Your task to perform on an android device: turn off picture-in-picture Image 0: 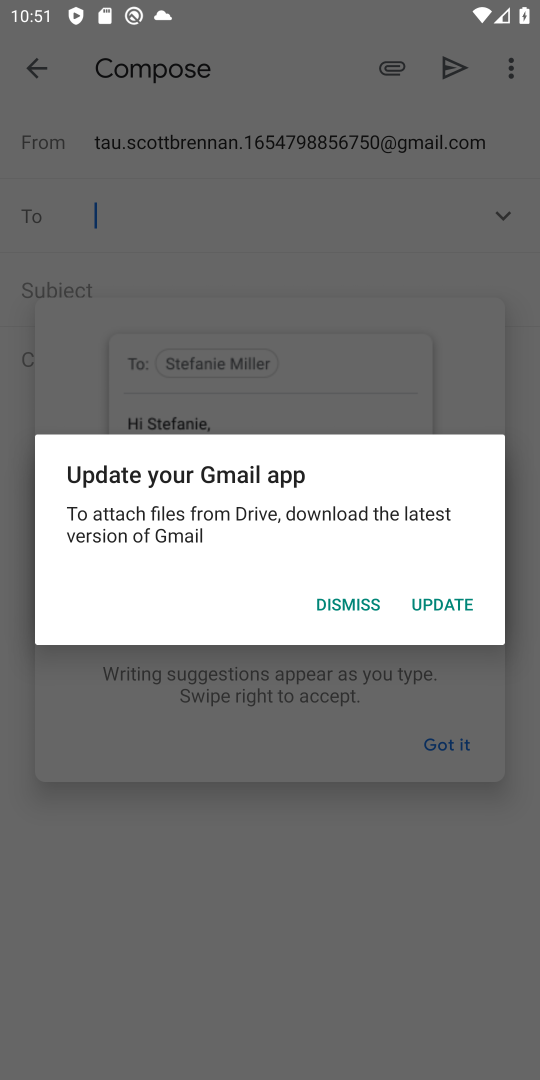
Step 0: press home button
Your task to perform on an android device: turn off picture-in-picture Image 1: 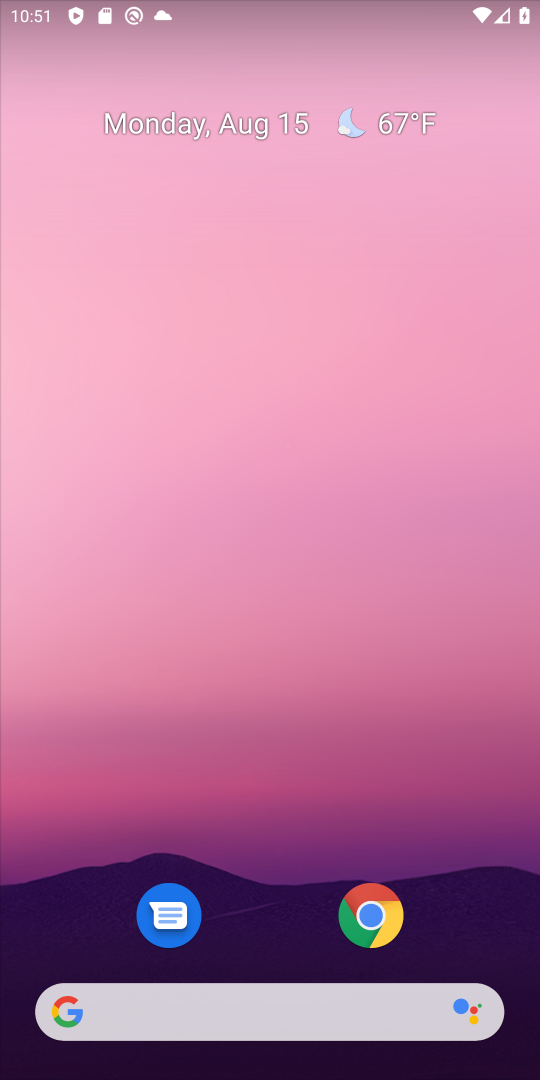
Step 1: click (367, 914)
Your task to perform on an android device: turn off picture-in-picture Image 2: 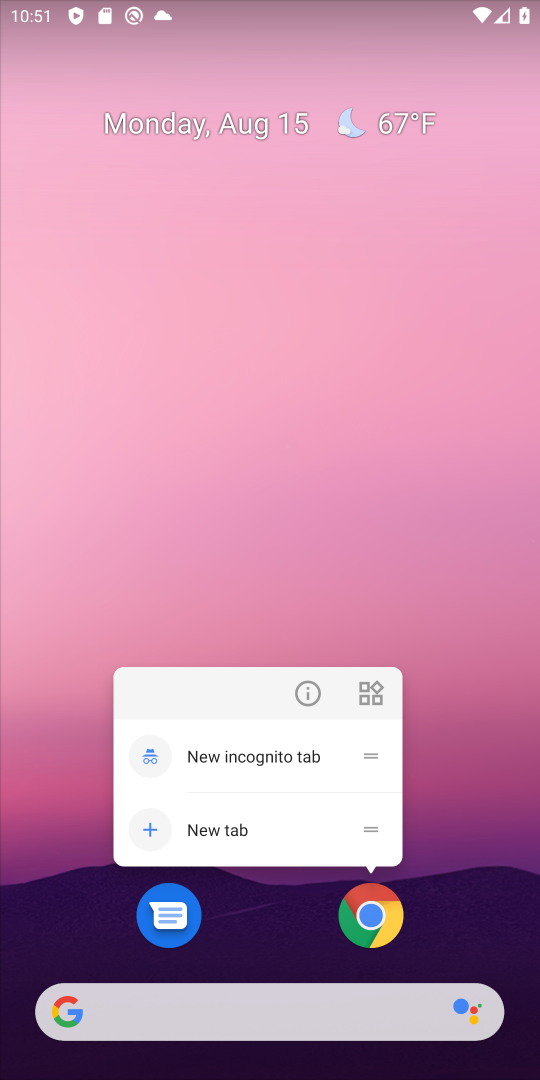
Step 2: click (298, 685)
Your task to perform on an android device: turn off picture-in-picture Image 3: 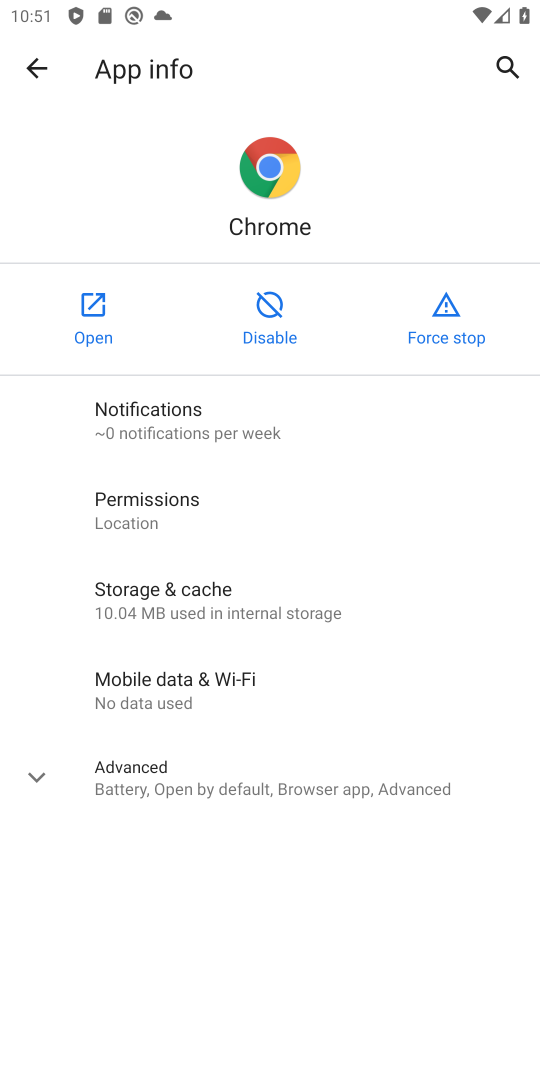
Step 3: click (169, 785)
Your task to perform on an android device: turn off picture-in-picture Image 4: 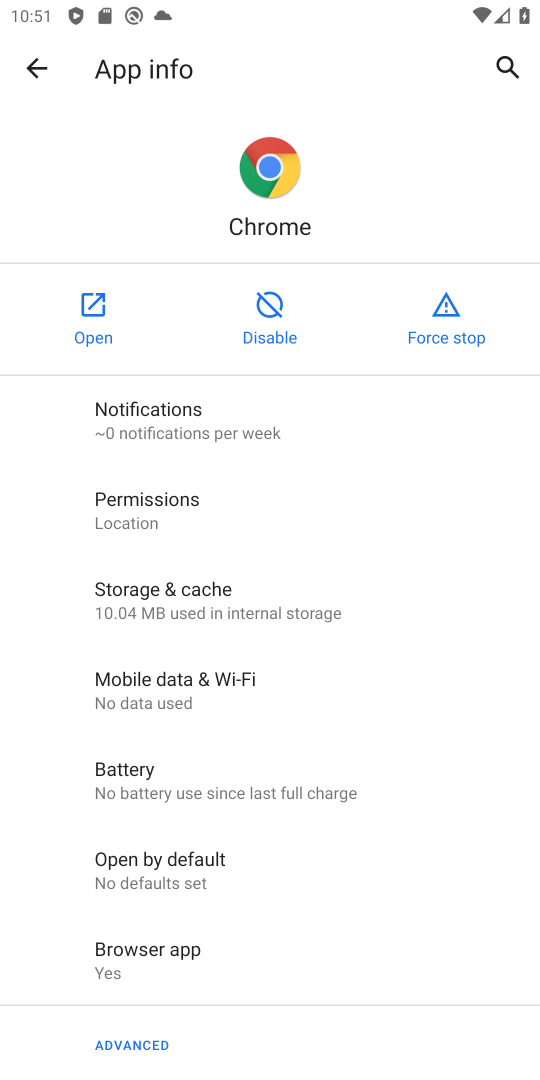
Step 4: drag from (336, 1004) to (275, 489)
Your task to perform on an android device: turn off picture-in-picture Image 5: 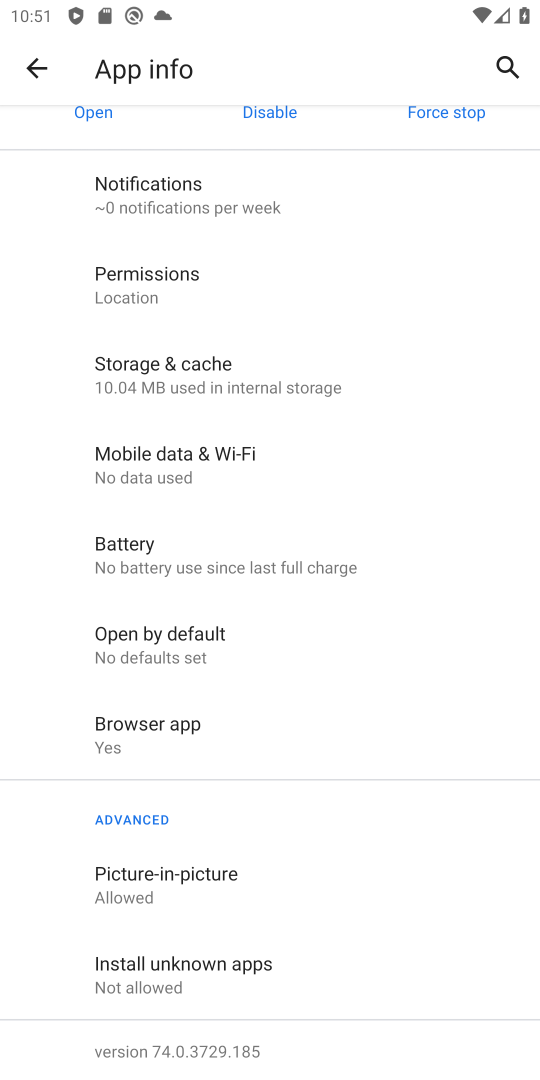
Step 5: click (165, 889)
Your task to perform on an android device: turn off picture-in-picture Image 6: 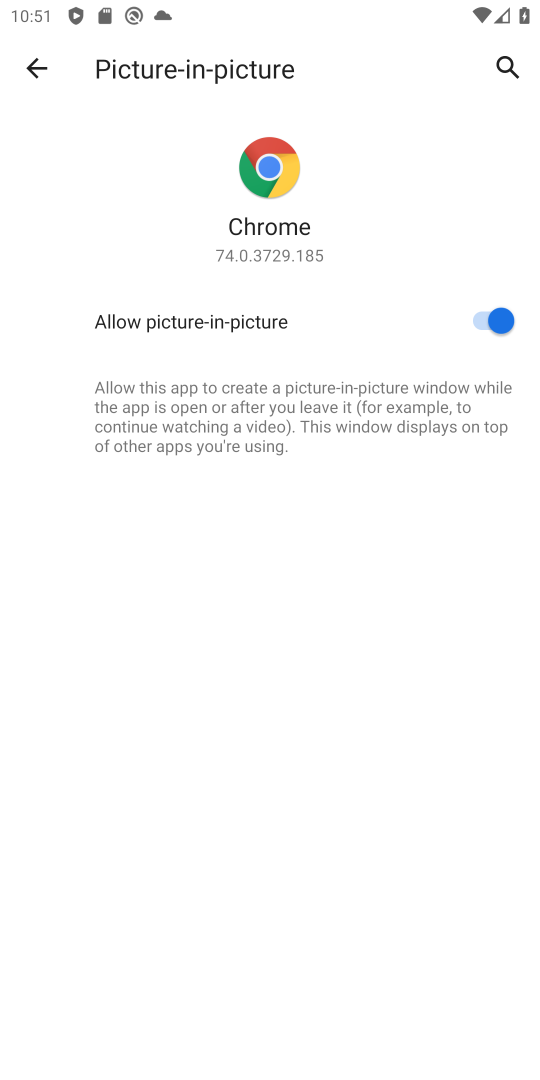
Step 6: click (504, 309)
Your task to perform on an android device: turn off picture-in-picture Image 7: 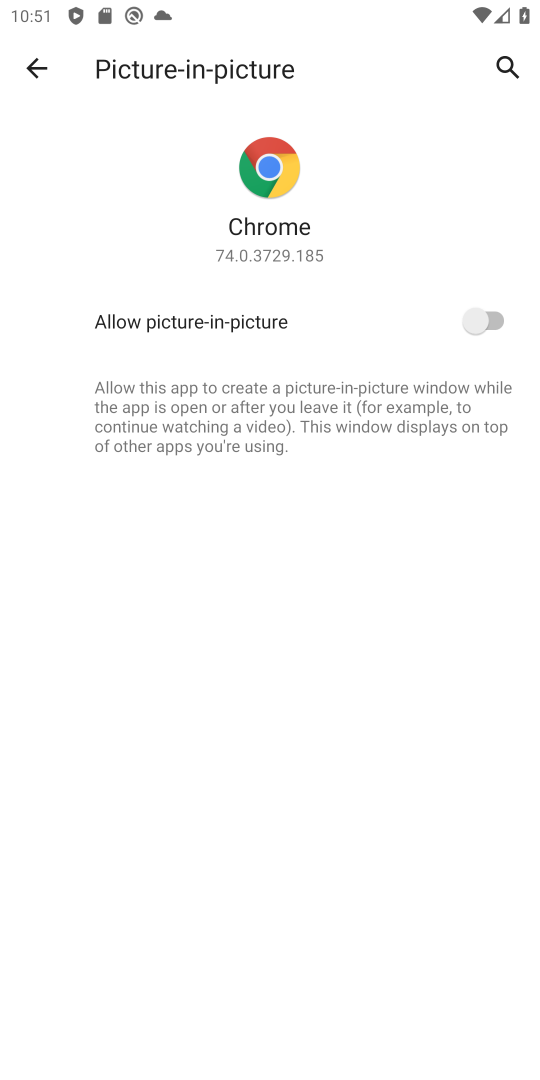
Step 7: task complete